Your task to perform on an android device: add a label to a message in the gmail app Image 0: 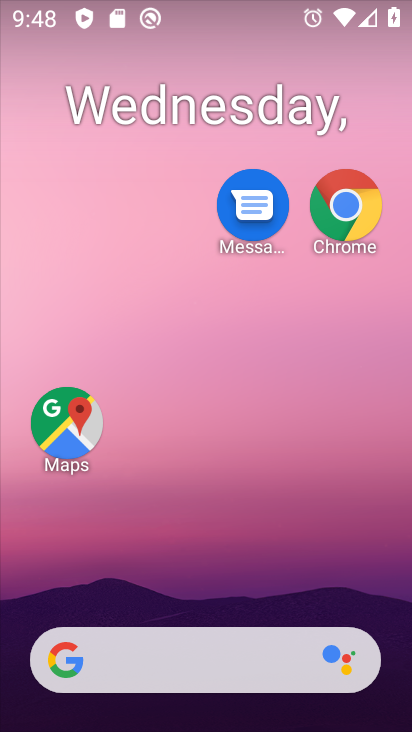
Step 0: drag from (271, 448) to (345, 186)
Your task to perform on an android device: add a label to a message in the gmail app Image 1: 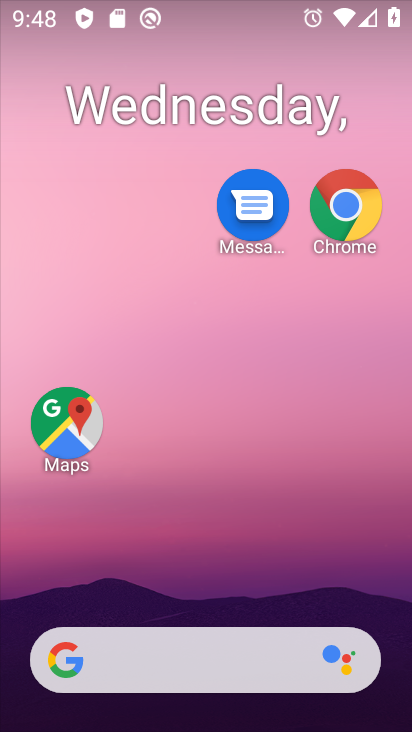
Step 1: drag from (250, 529) to (276, 6)
Your task to perform on an android device: add a label to a message in the gmail app Image 2: 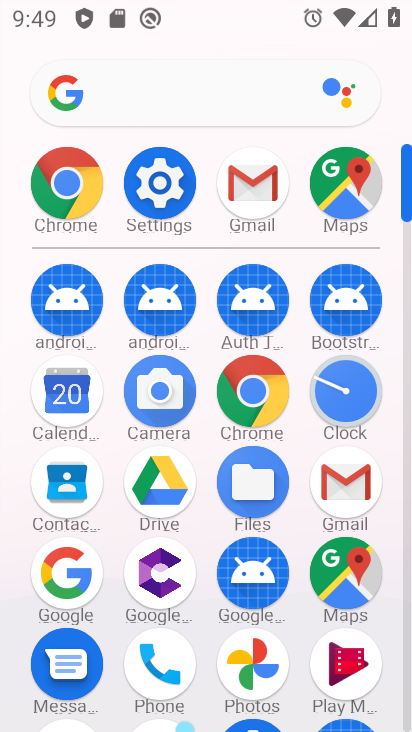
Step 2: click (357, 452)
Your task to perform on an android device: add a label to a message in the gmail app Image 3: 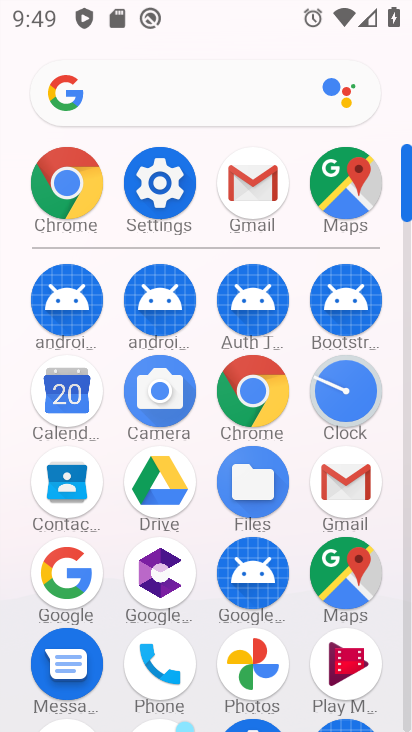
Step 3: click (339, 468)
Your task to perform on an android device: add a label to a message in the gmail app Image 4: 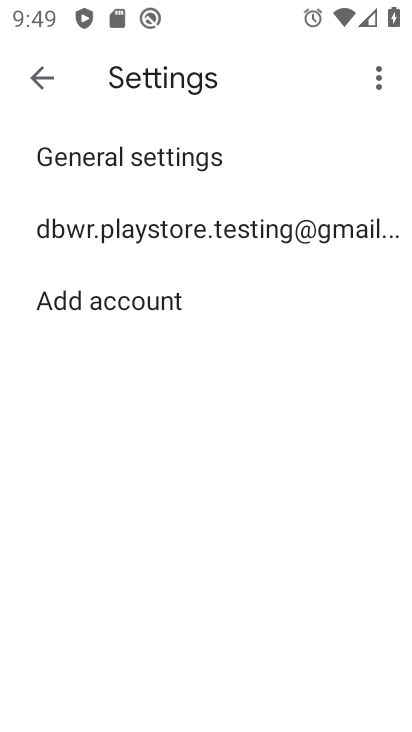
Step 4: click (46, 78)
Your task to perform on an android device: add a label to a message in the gmail app Image 5: 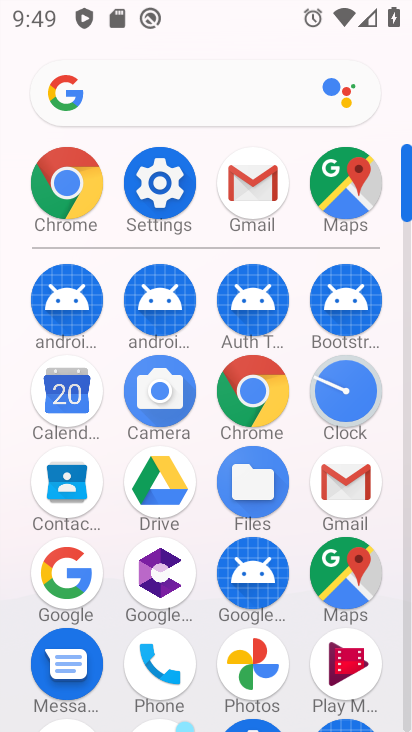
Step 5: click (259, 198)
Your task to perform on an android device: add a label to a message in the gmail app Image 6: 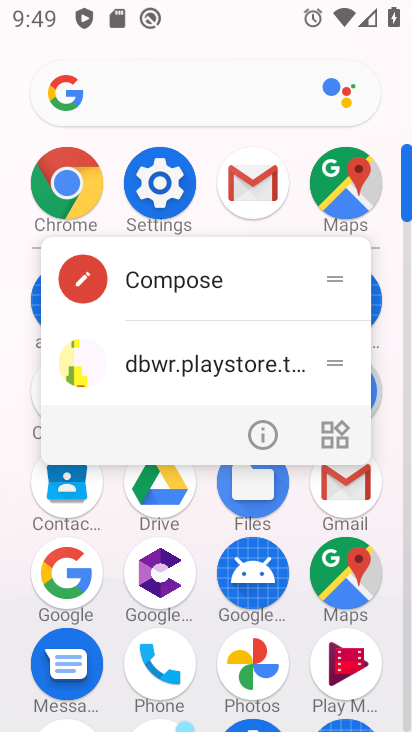
Step 6: click (260, 426)
Your task to perform on an android device: add a label to a message in the gmail app Image 7: 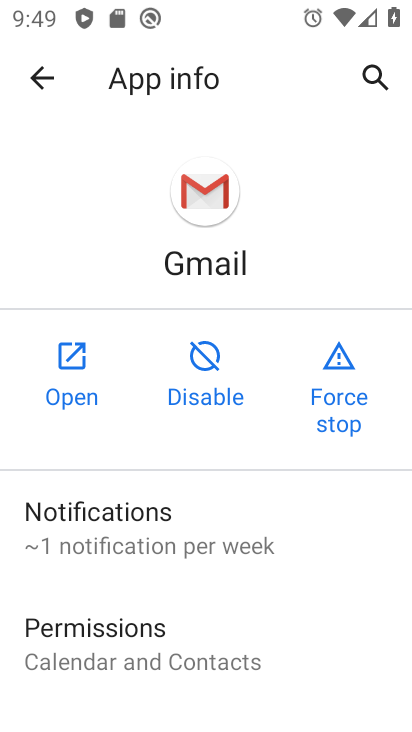
Step 7: click (62, 374)
Your task to perform on an android device: add a label to a message in the gmail app Image 8: 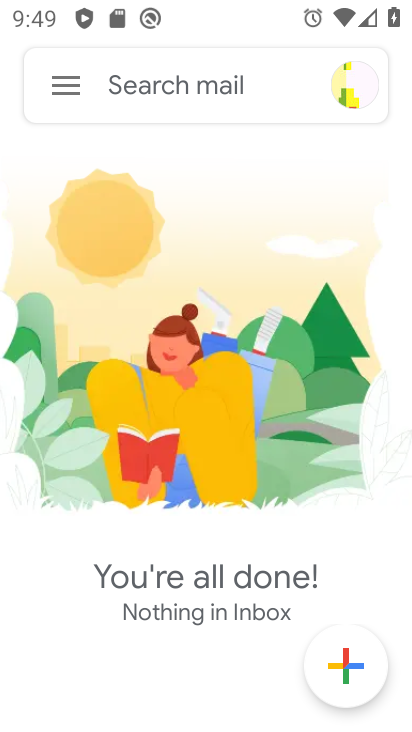
Step 8: task complete